Your task to perform on an android device: Check the news Image 0: 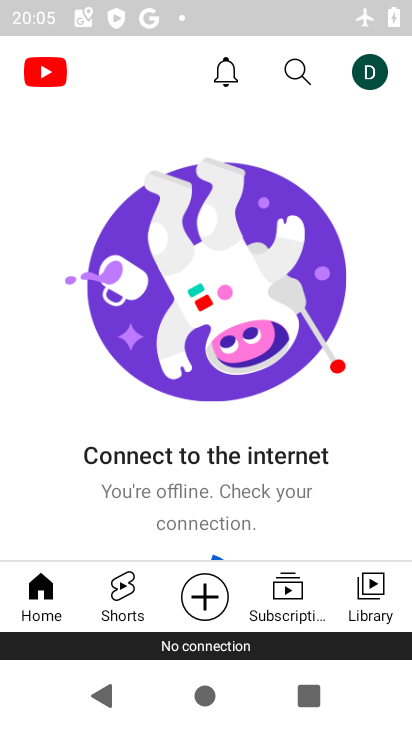
Step 0: press home button
Your task to perform on an android device: Check the news Image 1: 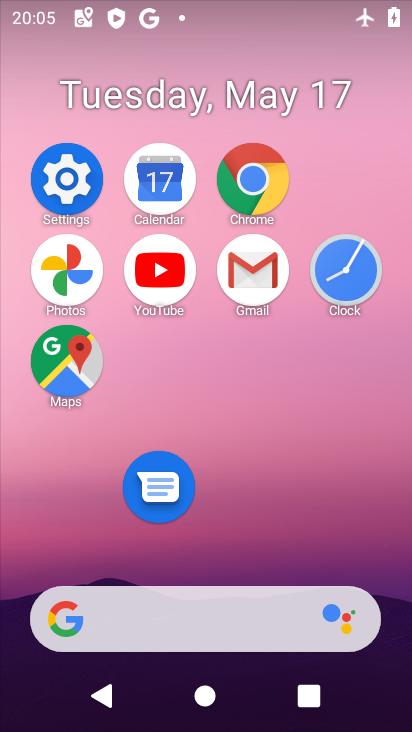
Step 1: drag from (266, 515) to (231, 93)
Your task to perform on an android device: Check the news Image 2: 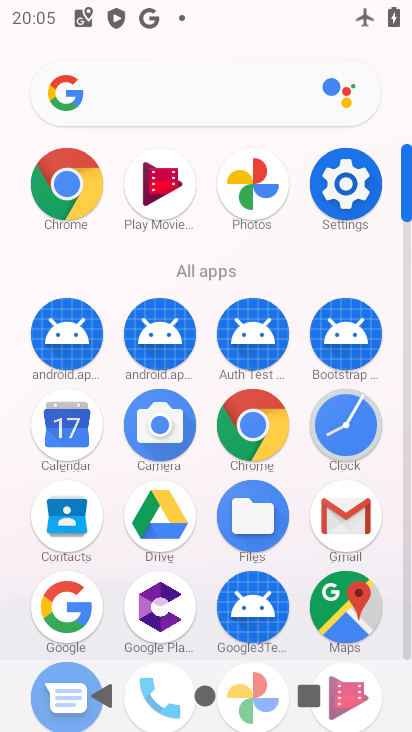
Step 2: drag from (71, 610) to (164, 358)
Your task to perform on an android device: Check the news Image 3: 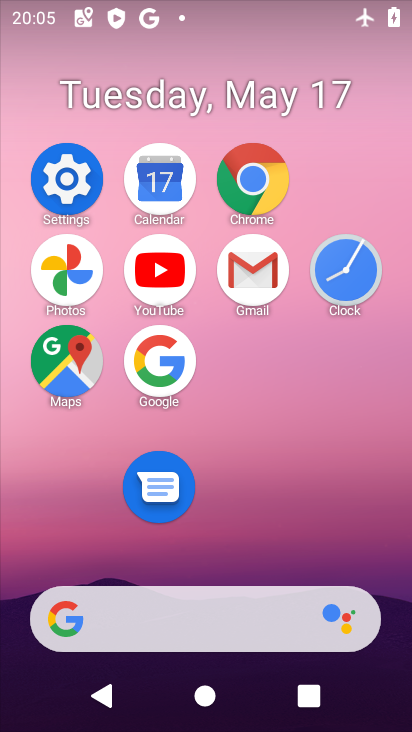
Step 3: click (166, 356)
Your task to perform on an android device: Check the news Image 4: 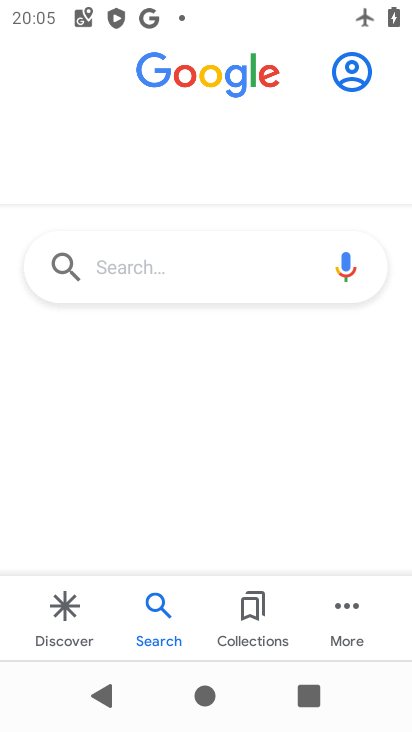
Step 4: click (153, 268)
Your task to perform on an android device: Check the news Image 5: 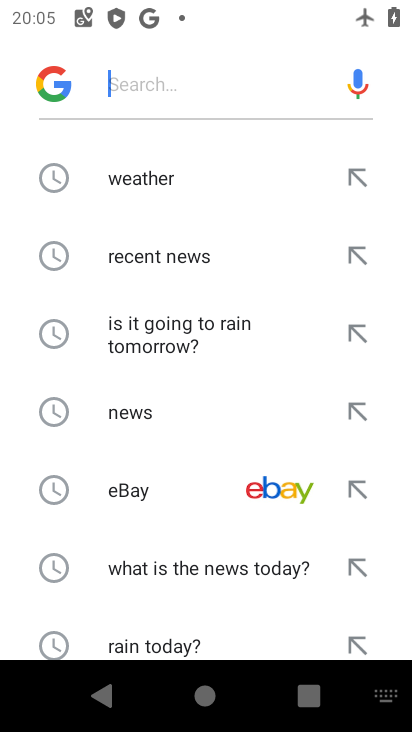
Step 5: click (151, 419)
Your task to perform on an android device: Check the news Image 6: 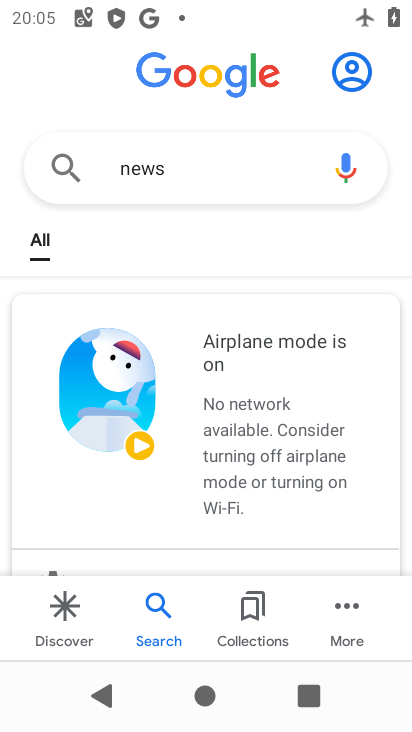
Step 6: task complete